Your task to perform on an android device: Do I have any events today? Image 0: 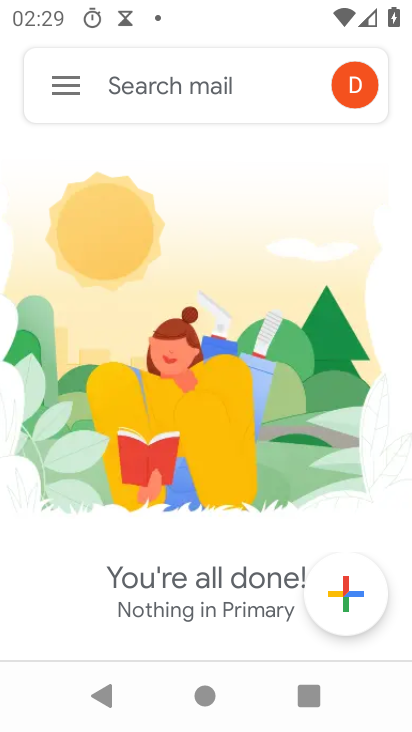
Step 0: press home button
Your task to perform on an android device: Do I have any events today? Image 1: 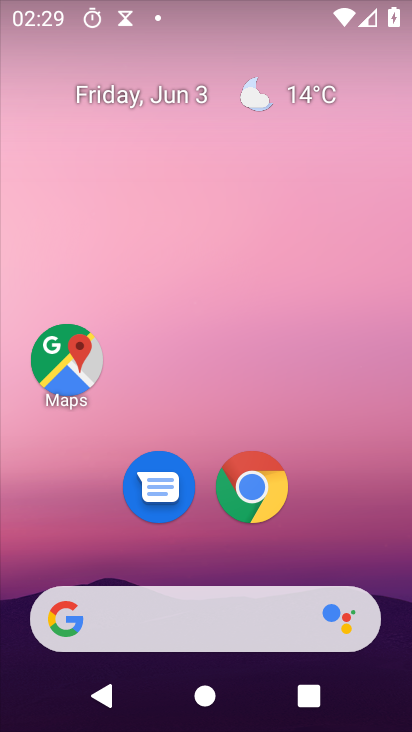
Step 1: click (158, 94)
Your task to perform on an android device: Do I have any events today? Image 2: 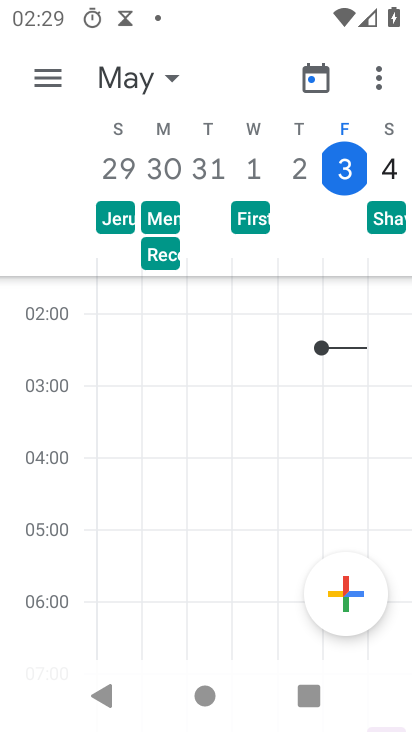
Step 2: task complete